Your task to perform on an android device: Is it going to rain tomorrow? Image 0: 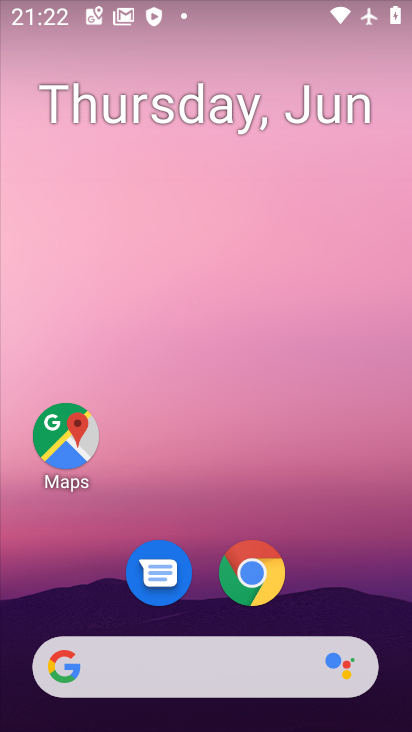
Step 0: click (248, 572)
Your task to perform on an android device: Is it going to rain tomorrow? Image 1: 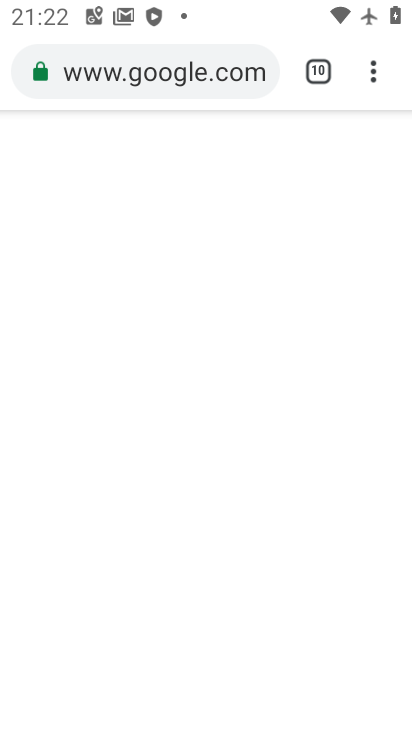
Step 1: click (377, 71)
Your task to perform on an android device: Is it going to rain tomorrow? Image 2: 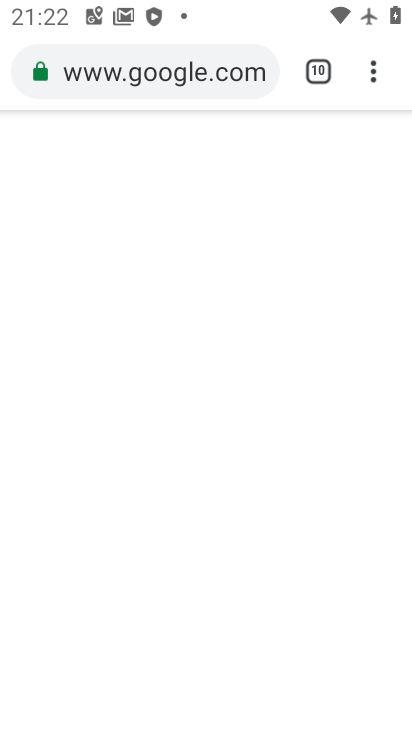
Step 2: click (368, 70)
Your task to perform on an android device: Is it going to rain tomorrow? Image 3: 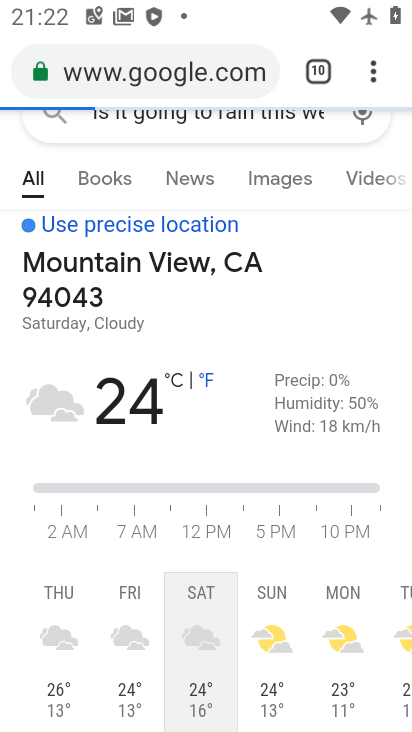
Step 3: click (371, 74)
Your task to perform on an android device: Is it going to rain tomorrow? Image 4: 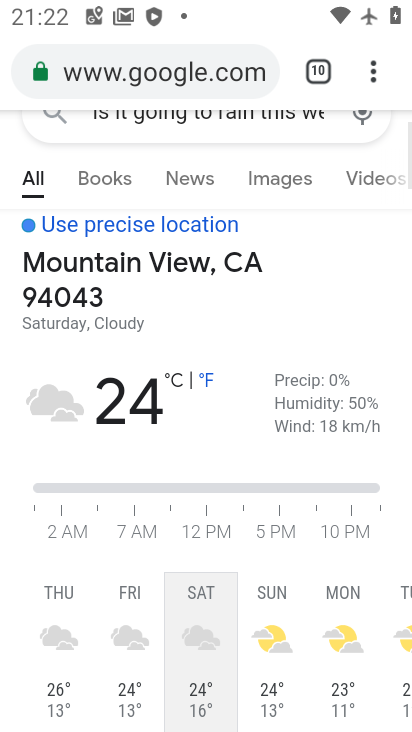
Step 4: click (364, 73)
Your task to perform on an android device: Is it going to rain tomorrow? Image 5: 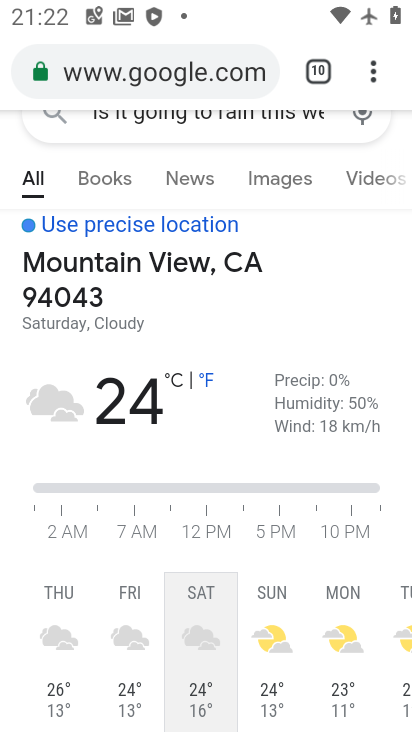
Step 5: click (380, 68)
Your task to perform on an android device: Is it going to rain tomorrow? Image 6: 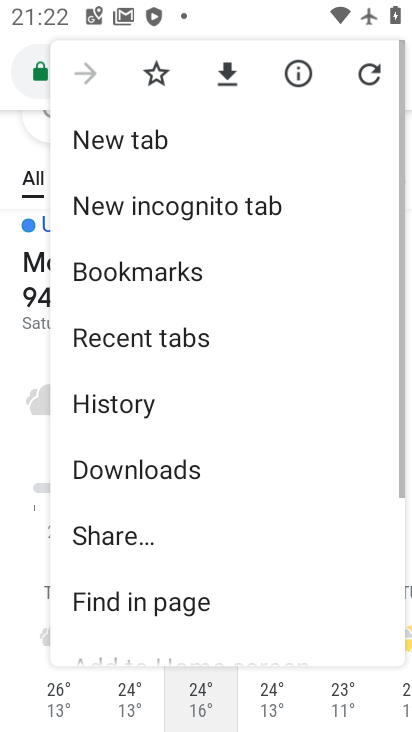
Step 6: click (168, 133)
Your task to perform on an android device: Is it going to rain tomorrow? Image 7: 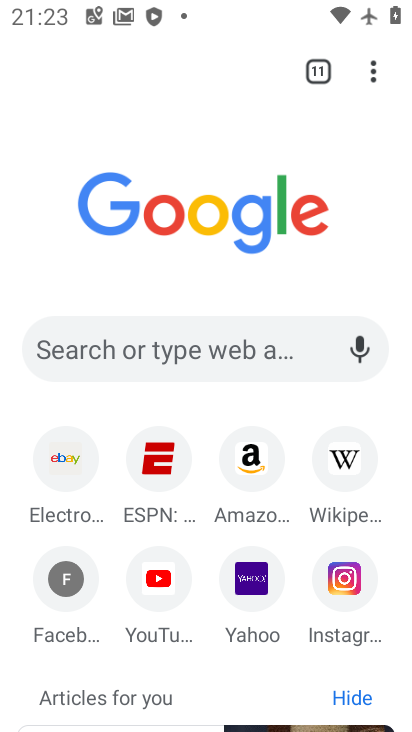
Step 7: click (242, 323)
Your task to perform on an android device: Is it going to rain tomorrow? Image 8: 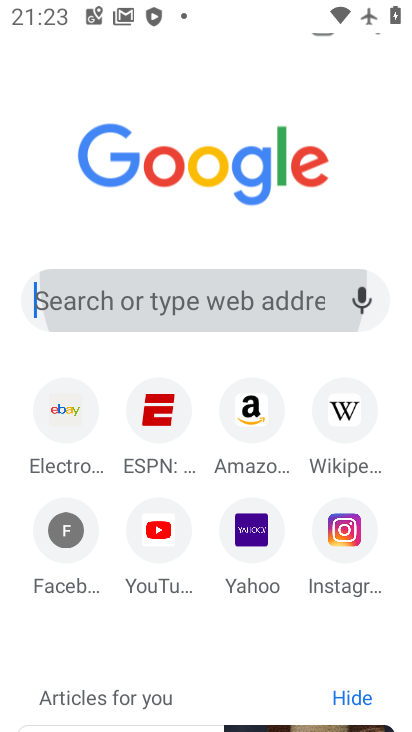
Step 8: click (243, 327)
Your task to perform on an android device: Is it going to rain tomorrow? Image 9: 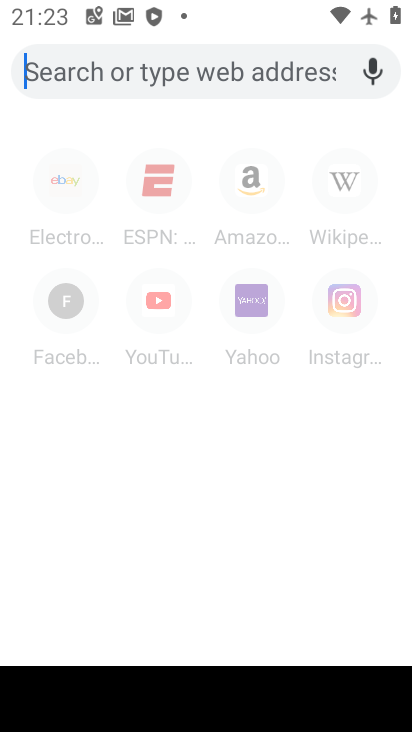
Step 9: type "Is it going to rain tomorrow?"
Your task to perform on an android device: Is it going to rain tomorrow? Image 10: 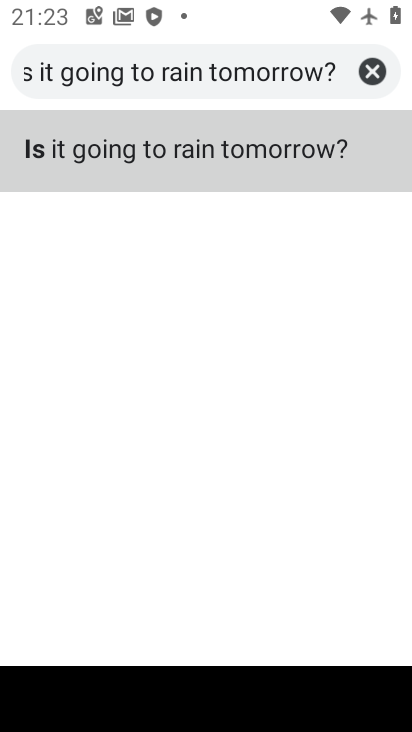
Step 10: click (214, 136)
Your task to perform on an android device: Is it going to rain tomorrow? Image 11: 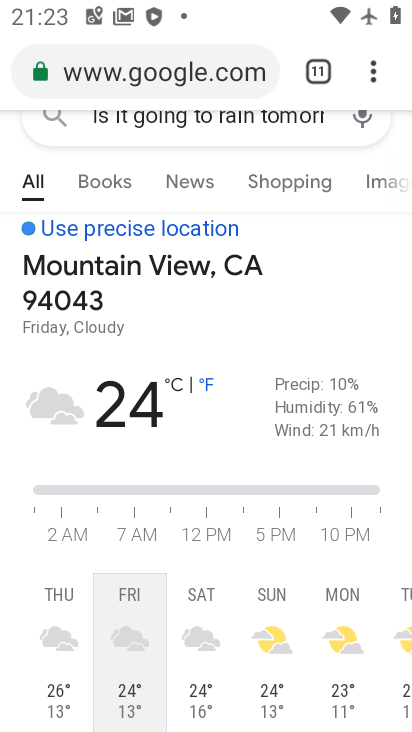
Step 11: task complete